Your task to perform on an android device: Toggle the flashlight Image 0: 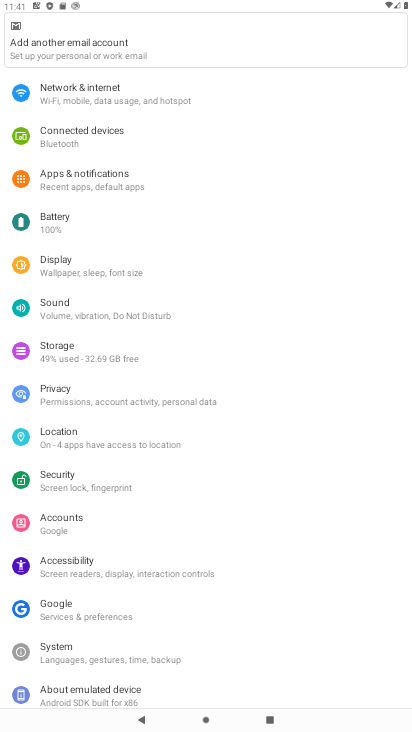
Step 0: drag from (278, 54) to (247, 479)
Your task to perform on an android device: Toggle the flashlight Image 1: 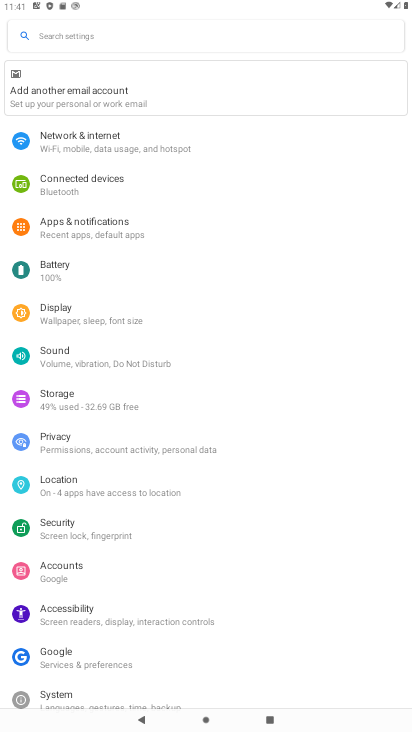
Step 1: task complete